Your task to perform on an android device: Open Youtube and go to "Your channel" Image 0: 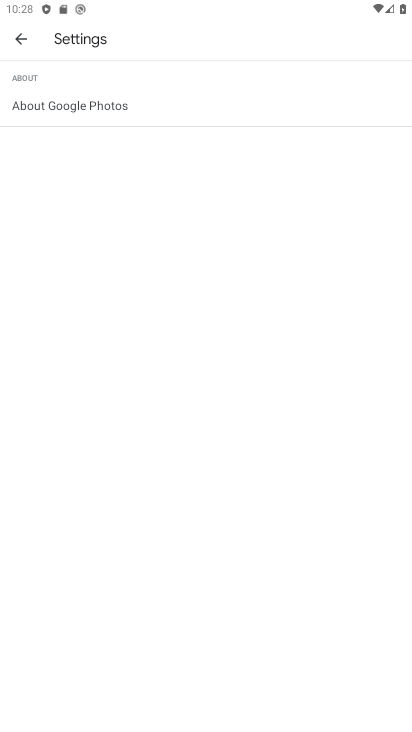
Step 0: press home button
Your task to perform on an android device: Open Youtube and go to "Your channel" Image 1: 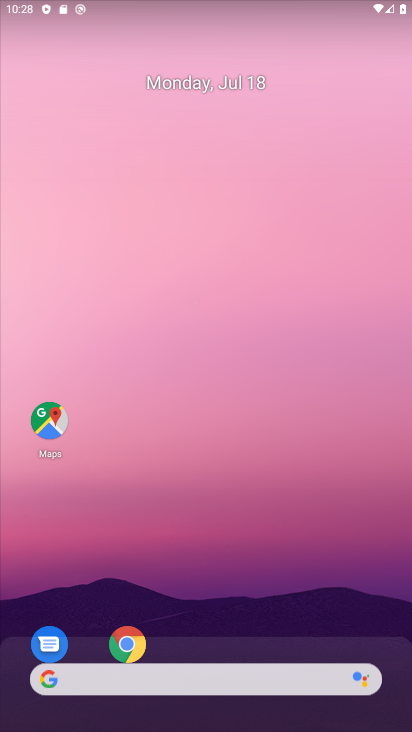
Step 1: drag from (266, 711) to (288, 177)
Your task to perform on an android device: Open Youtube and go to "Your channel" Image 2: 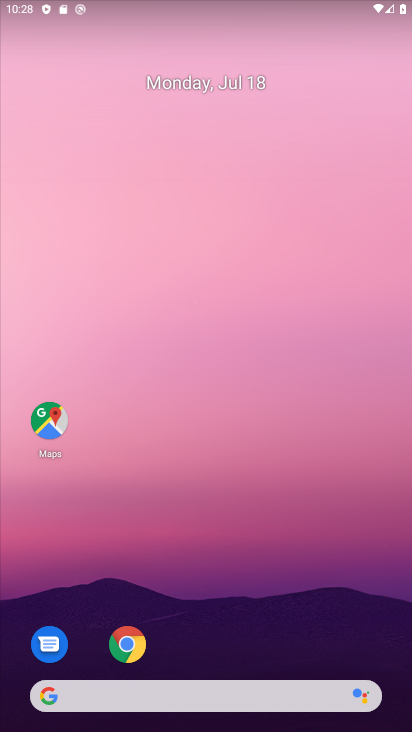
Step 2: drag from (245, 574) to (284, 25)
Your task to perform on an android device: Open Youtube and go to "Your channel" Image 3: 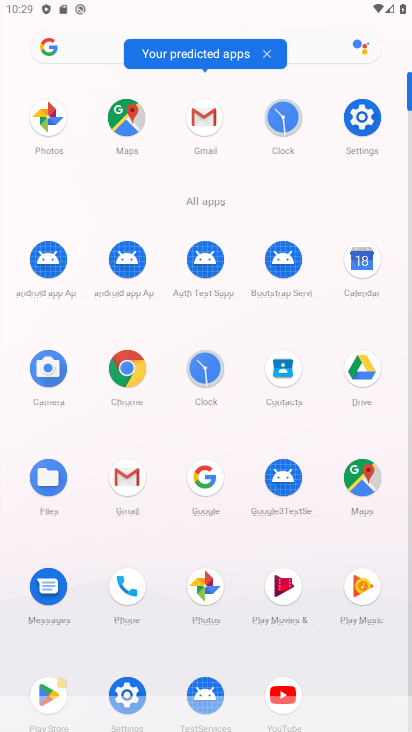
Step 3: click (285, 695)
Your task to perform on an android device: Open Youtube and go to "Your channel" Image 4: 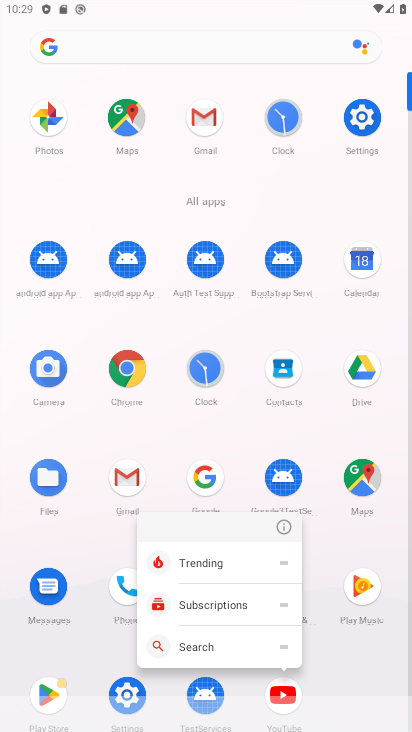
Step 4: click (286, 694)
Your task to perform on an android device: Open Youtube and go to "Your channel" Image 5: 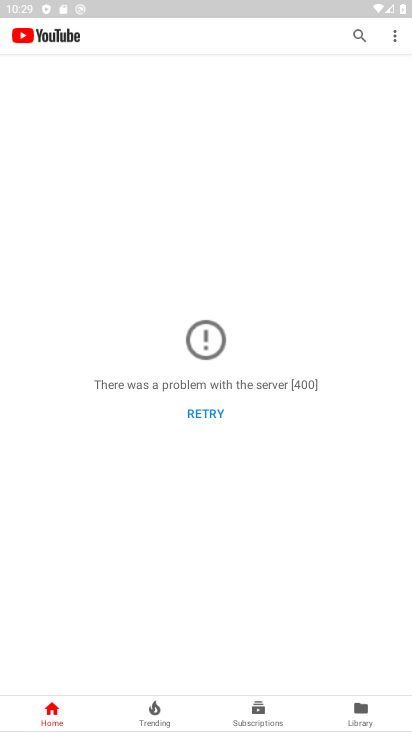
Step 5: drag from (273, 718) to (381, 713)
Your task to perform on an android device: Open Youtube and go to "Your channel" Image 6: 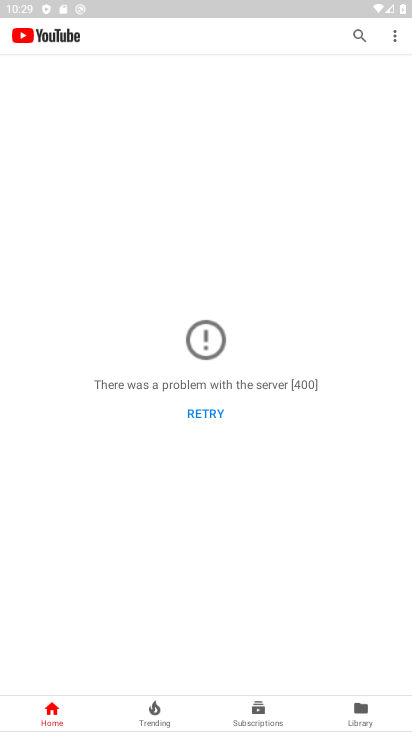
Step 6: click (381, 713)
Your task to perform on an android device: Open Youtube and go to "Your channel" Image 7: 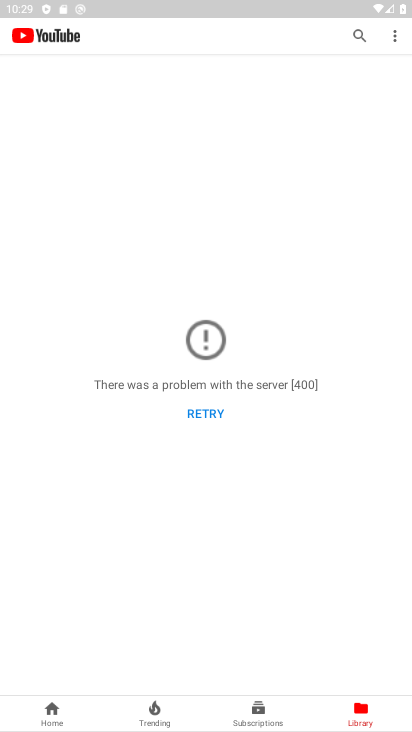
Step 7: task complete